Your task to perform on an android device: Open settings Image 0: 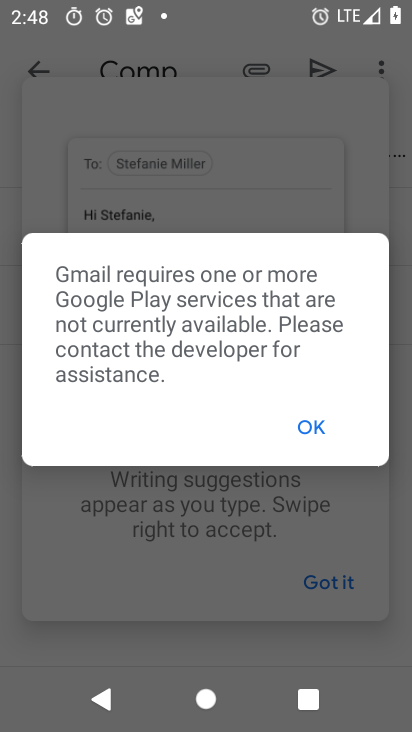
Step 0: press home button
Your task to perform on an android device: Open settings Image 1: 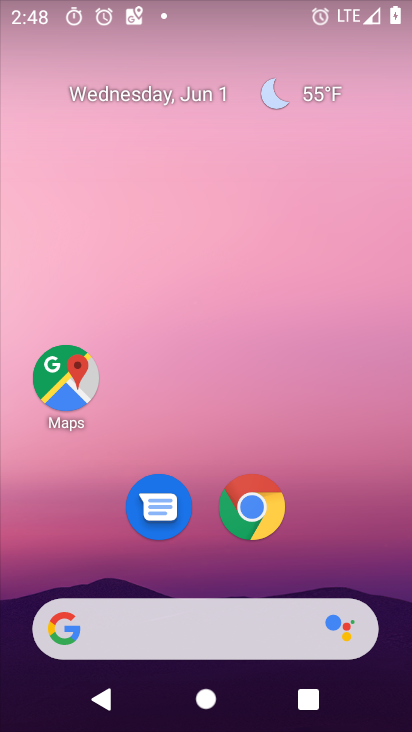
Step 1: drag from (343, 591) to (272, 6)
Your task to perform on an android device: Open settings Image 2: 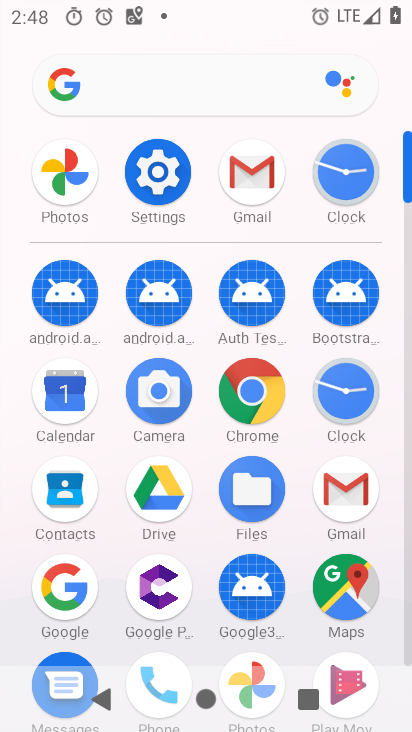
Step 2: click (153, 163)
Your task to perform on an android device: Open settings Image 3: 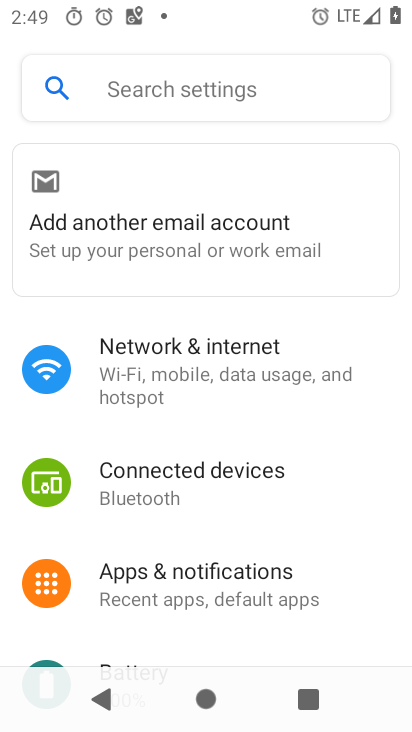
Step 3: task complete